Your task to perform on an android device: When is my next meeting? Image 0: 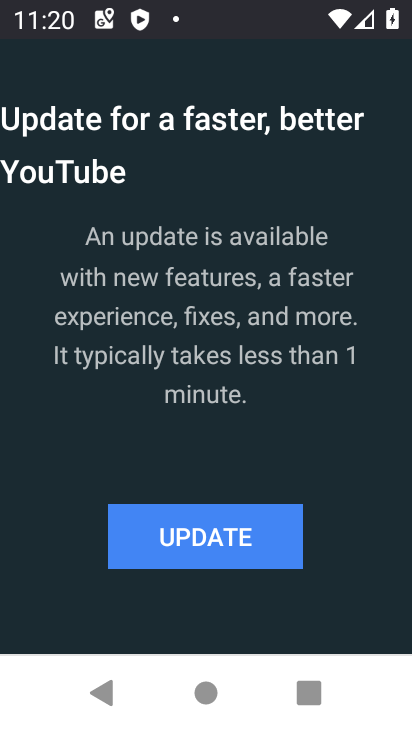
Step 0: press home button
Your task to perform on an android device: When is my next meeting? Image 1: 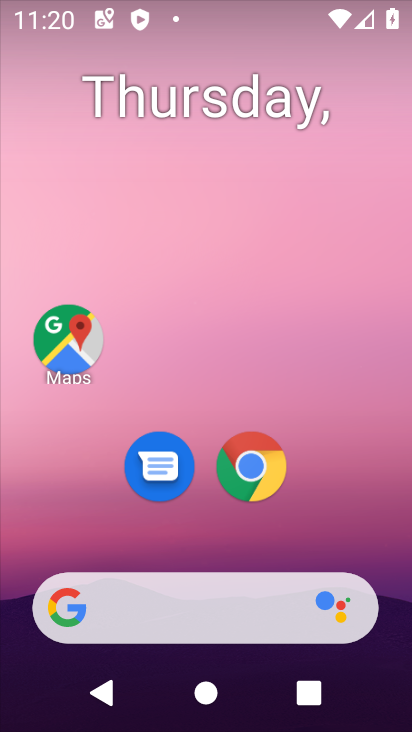
Step 1: drag from (399, 611) to (286, 98)
Your task to perform on an android device: When is my next meeting? Image 2: 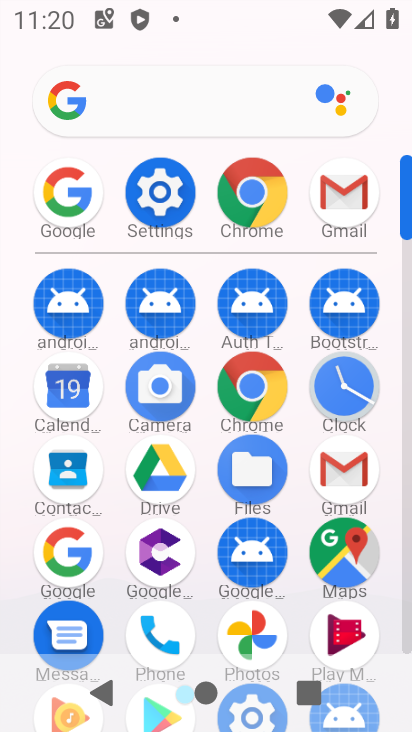
Step 2: click (80, 409)
Your task to perform on an android device: When is my next meeting? Image 3: 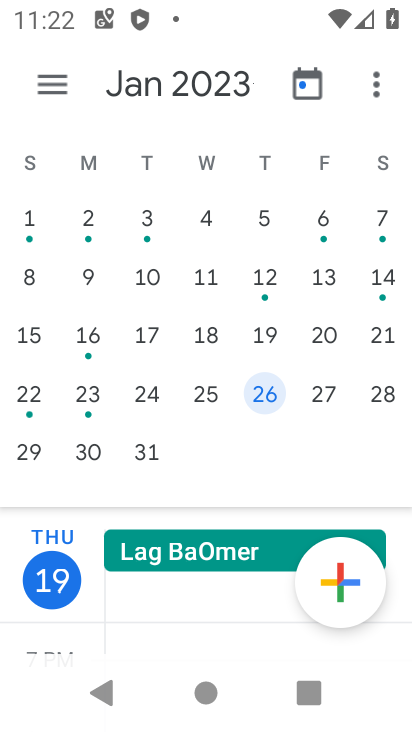
Step 3: task complete